Your task to perform on an android device: move a message to another label in the gmail app Image 0: 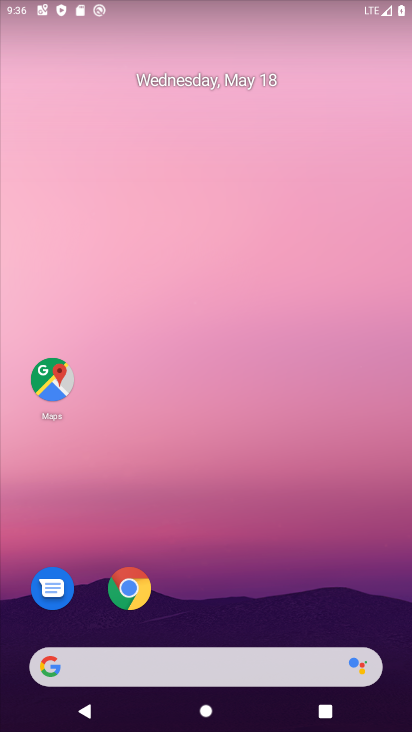
Step 0: drag from (347, 640) to (310, 2)
Your task to perform on an android device: move a message to another label in the gmail app Image 1: 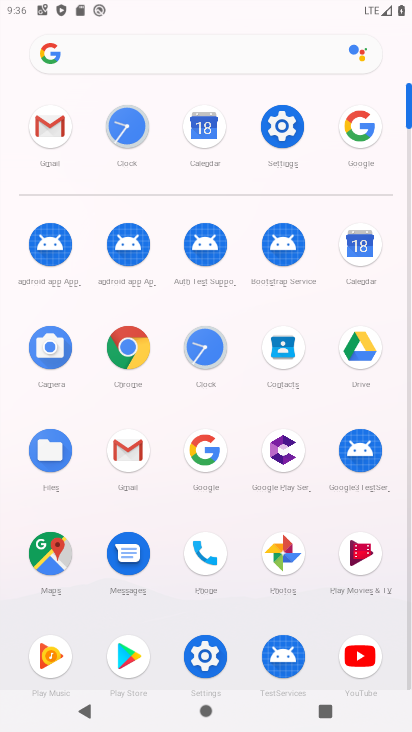
Step 1: click (127, 454)
Your task to perform on an android device: move a message to another label in the gmail app Image 2: 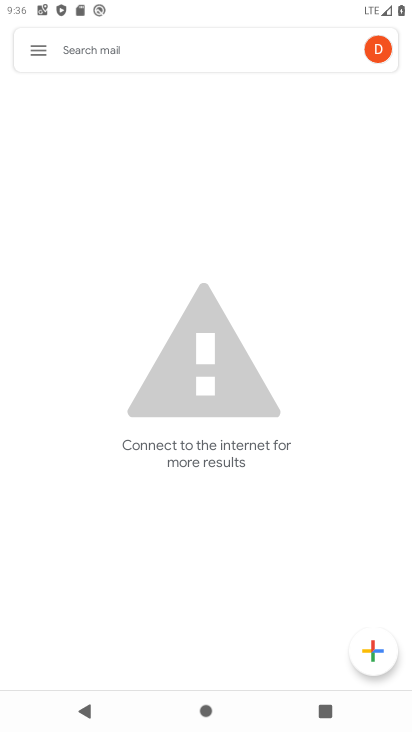
Step 2: click (32, 46)
Your task to perform on an android device: move a message to another label in the gmail app Image 3: 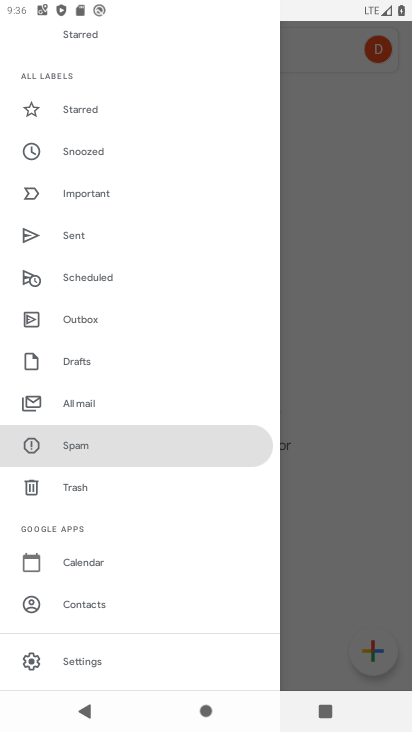
Step 3: click (80, 410)
Your task to perform on an android device: move a message to another label in the gmail app Image 4: 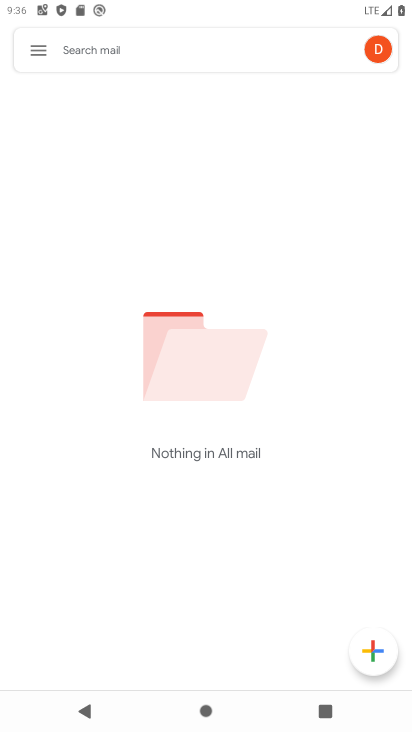
Step 4: task complete